Your task to perform on an android device: toggle translation in the chrome app Image 0: 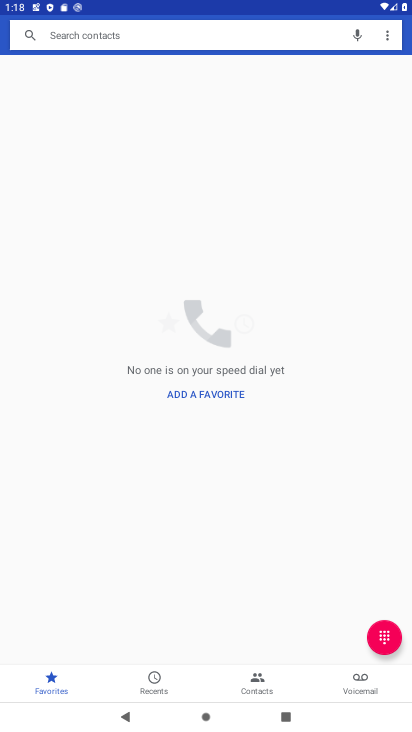
Step 0: press home button
Your task to perform on an android device: toggle translation in the chrome app Image 1: 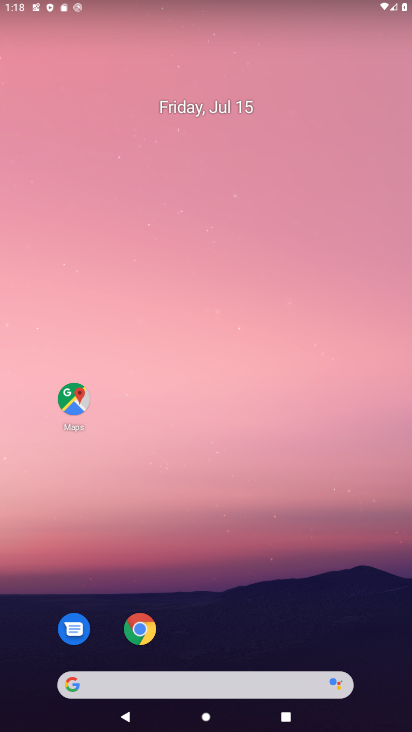
Step 1: drag from (309, 552) to (220, 22)
Your task to perform on an android device: toggle translation in the chrome app Image 2: 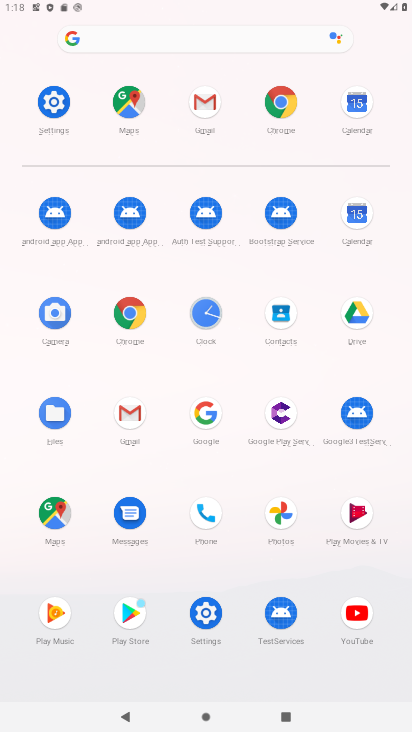
Step 2: click (127, 309)
Your task to perform on an android device: toggle translation in the chrome app Image 3: 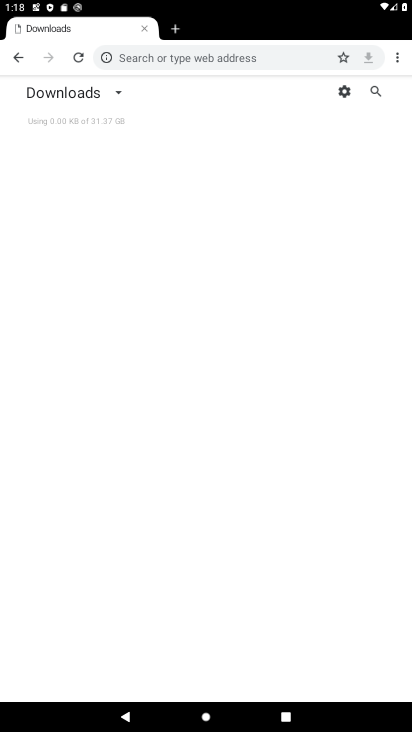
Step 3: drag from (398, 58) to (273, 301)
Your task to perform on an android device: toggle translation in the chrome app Image 4: 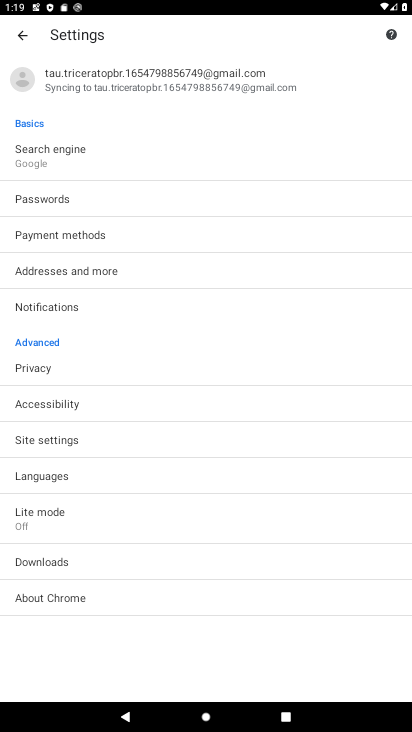
Step 4: click (50, 476)
Your task to perform on an android device: toggle translation in the chrome app Image 5: 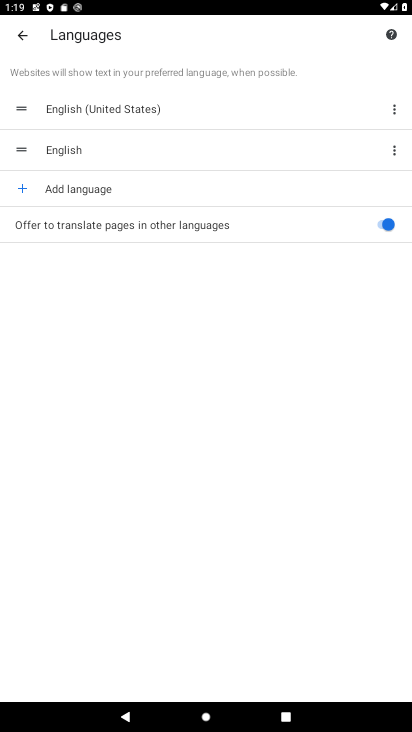
Step 5: click (386, 227)
Your task to perform on an android device: toggle translation in the chrome app Image 6: 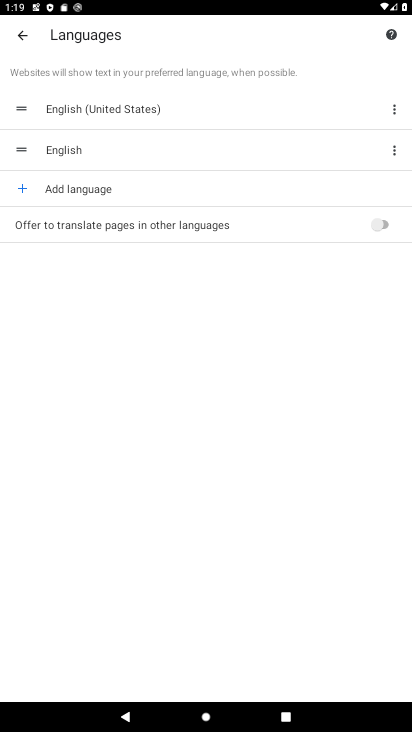
Step 6: task complete